Your task to perform on an android device: Go to accessibility settings Image 0: 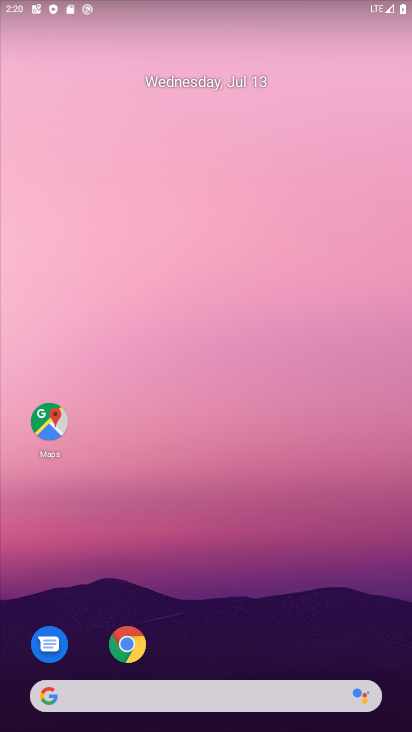
Step 0: drag from (339, 592) to (241, 148)
Your task to perform on an android device: Go to accessibility settings Image 1: 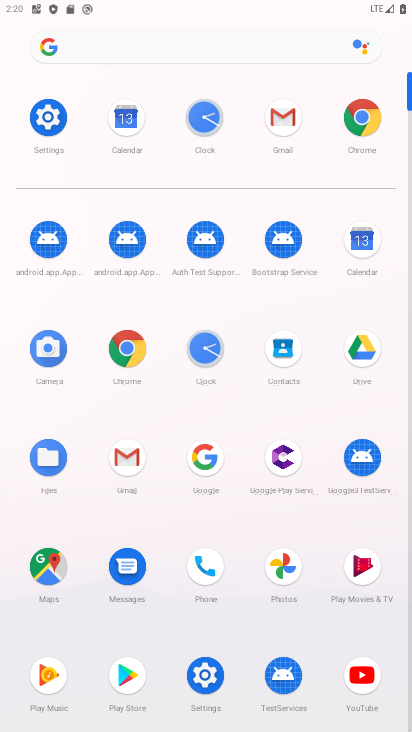
Step 1: click (51, 120)
Your task to perform on an android device: Go to accessibility settings Image 2: 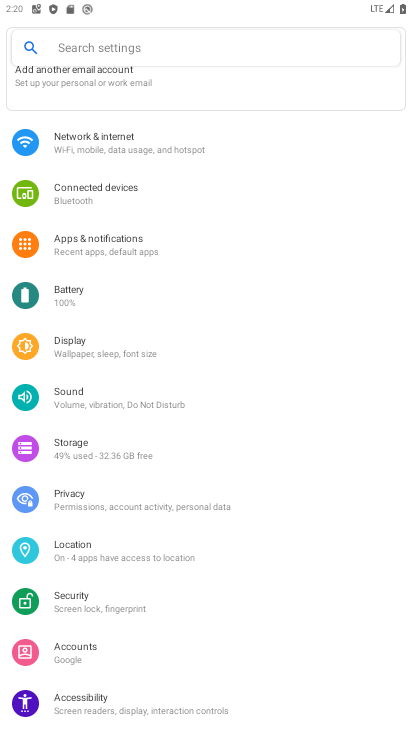
Step 2: drag from (219, 503) to (248, 323)
Your task to perform on an android device: Go to accessibility settings Image 3: 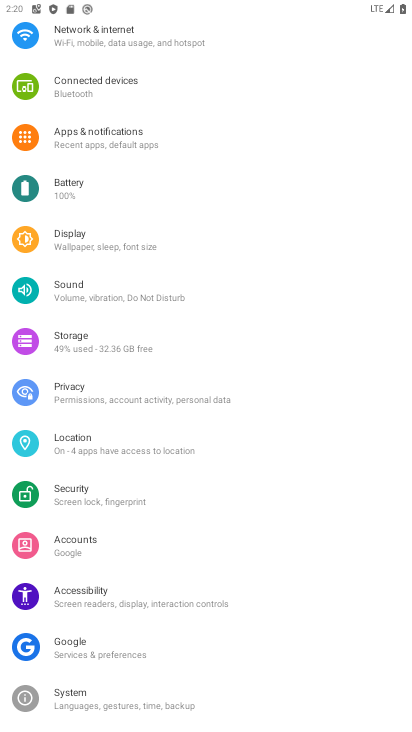
Step 3: click (111, 602)
Your task to perform on an android device: Go to accessibility settings Image 4: 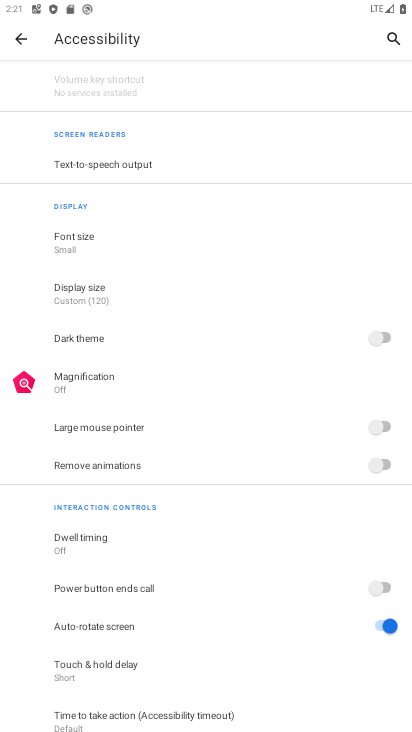
Step 4: task complete